Your task to perform on an android device: choose inbox layout in the gmail app Image 0: 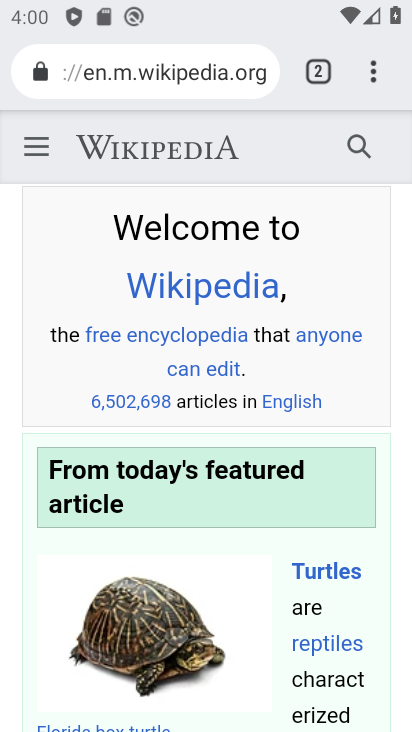
Step 0: press home button
Your task to perform on an android device: choose inbox layout in the gmail app Image 1: 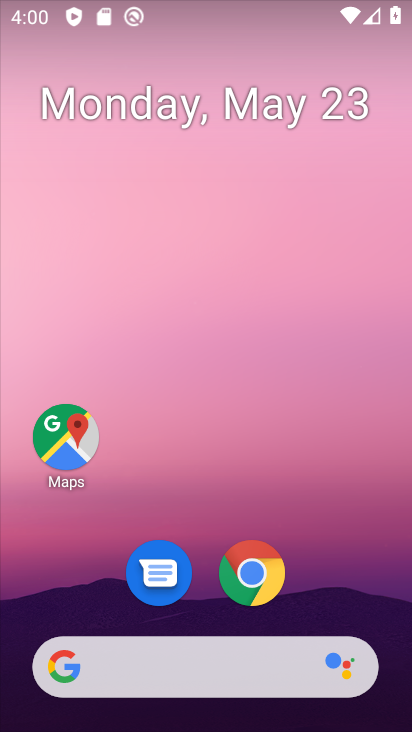
Step 1: drag from (197, 717) to (219, 25)
Your task to perform on an android device: choose inbox layout in the gmail app Image 2: 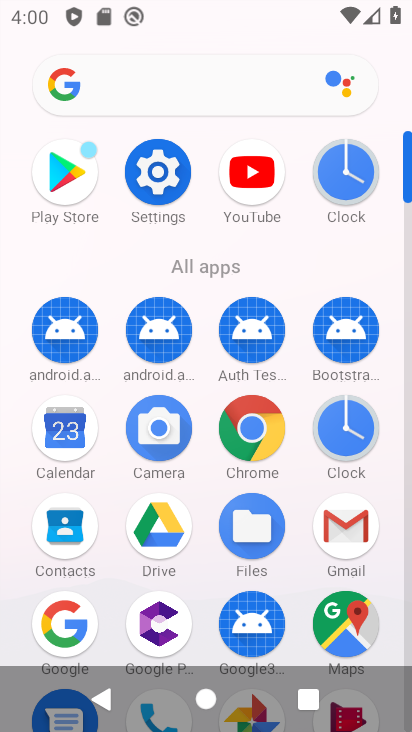
Step 2: click (352, 529)
Your task to perform on an android device: choose inbox layout in the gmail app Image 3: 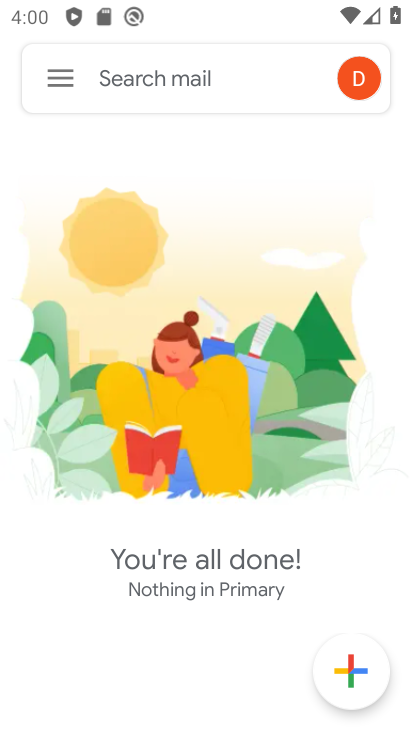
Step 3: click (51, 78)
Your task to perform on an android device: choose inbox layout in the gmail app Image 4: 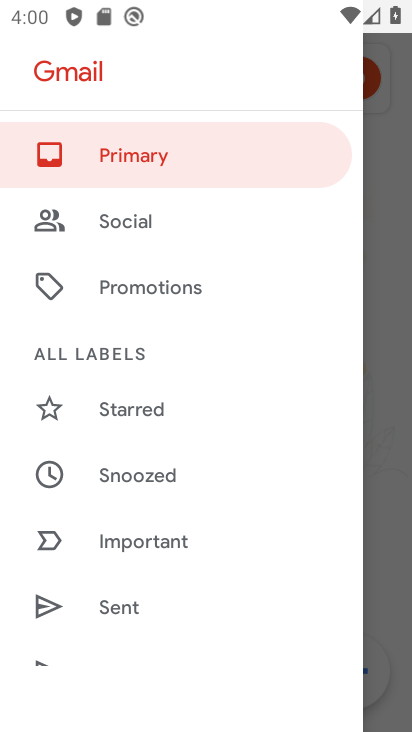
Step 4: drag from (140, 634) to (140, 202)
Your task to perform on an android device: choose inbox layout in the gmail app Image 5: 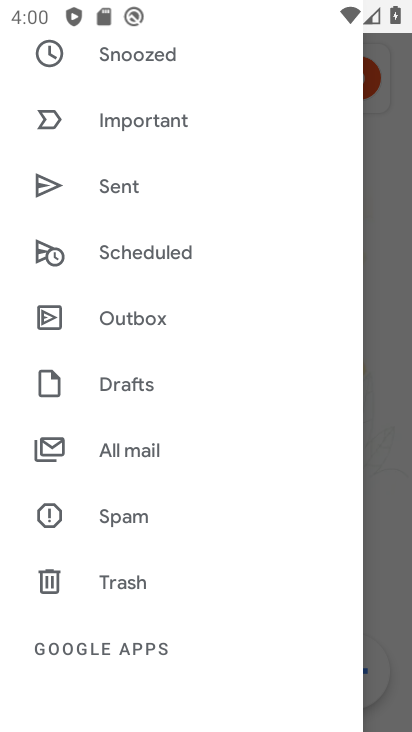
Step 5: drag from (113, 622) to (146, 185)
Your task to perform on an android device: choose inbox layout in the gmail app Image 6: 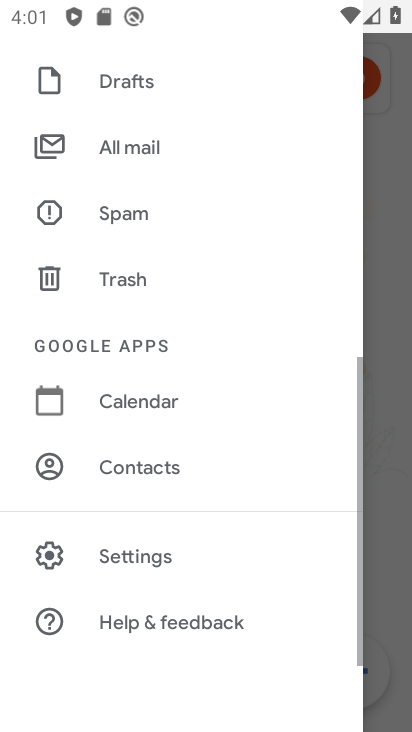
Step 6: drag from (137, 551) to (145, 126)
Your task to perform on an android device: choose inbox layout in the gmail app Image 7: 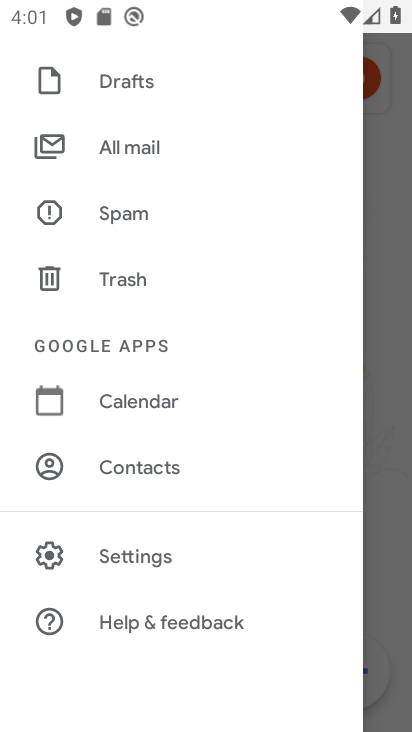
Step 7: drag from (119, 586) to (130, 89)
Your task to perform on an android device: choose inbox layout in the gmail app Image 8: 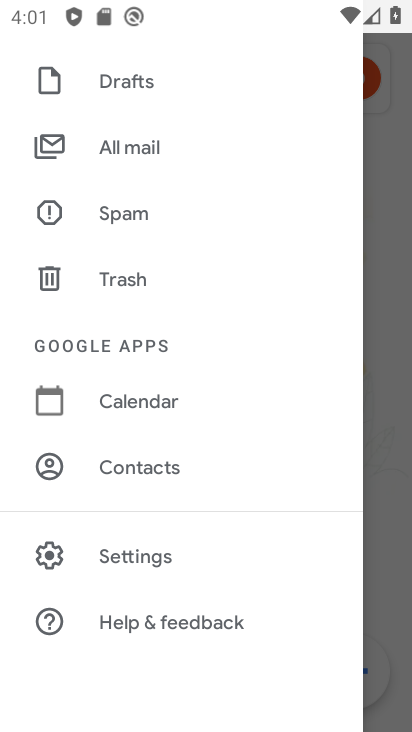
Step 8: click (112, 561)
Your task to perform on an android device: choose inbox layout in the gmail app Image 9: 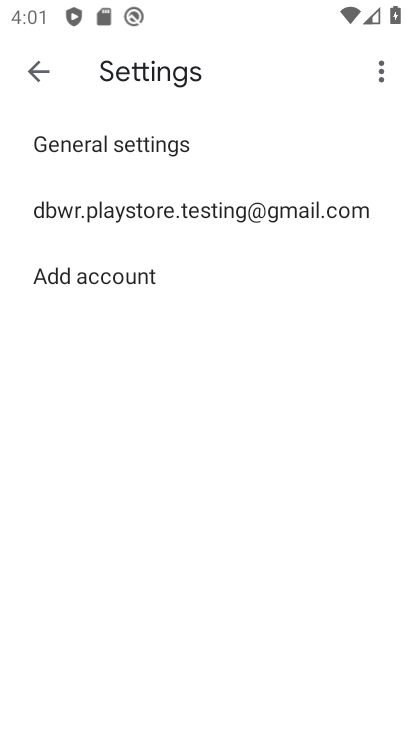
Step 9: click (181, 203)
Your task to perform on an android device: choose inbox layout in the gmail app Image 10: 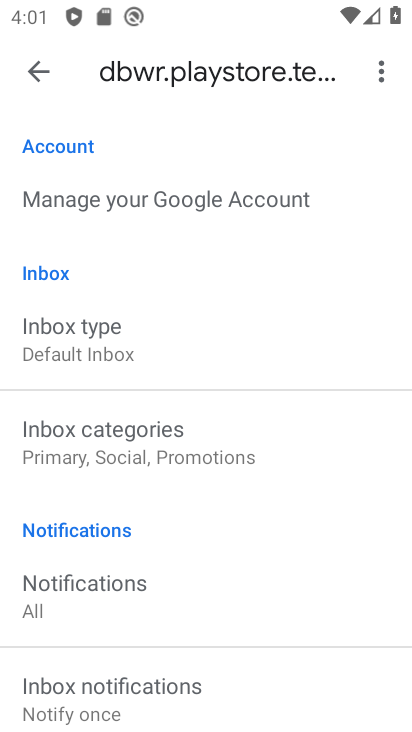
Step 10: drag from (127, 648) to (153, 342)
Your task to perform on an android device: choose inbox layout in the gmail app Image 11: 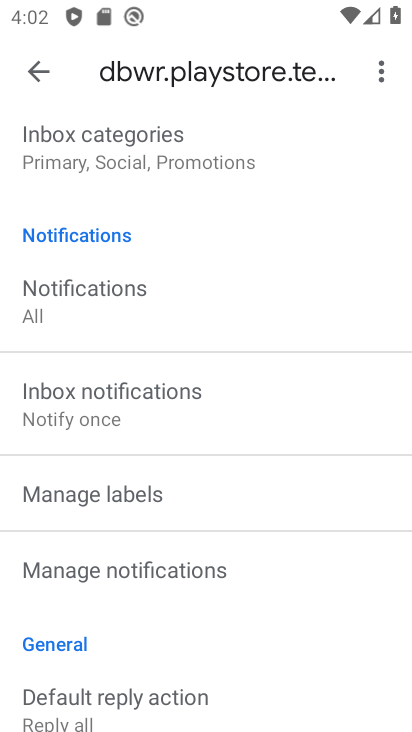
Step 11: drag from (116, 188) to (115, 656)
Your task to perform on an android device: choose inbox layout in the gmail app Image 12: 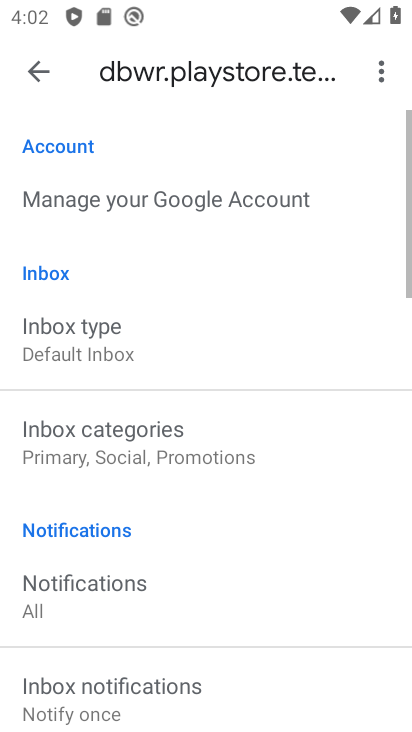
Step 12: click (44, 342)
Your task to perform on an android device: choose inbox layout in the gmail app Image 13: 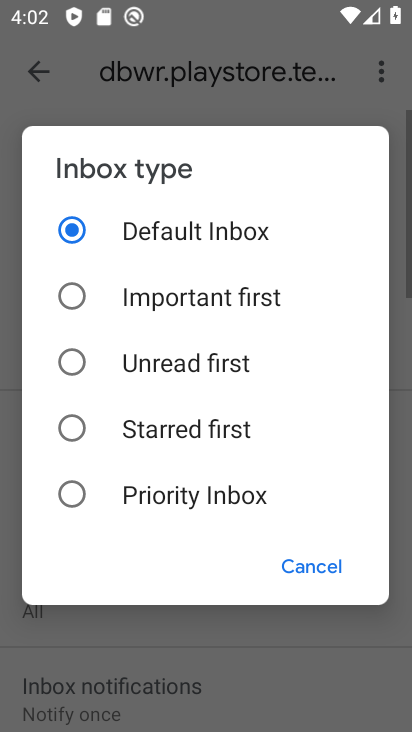
Step 13: click (77, 294)
Your task to perform on an android device: choose inbox layout in the gmail app Image 14: 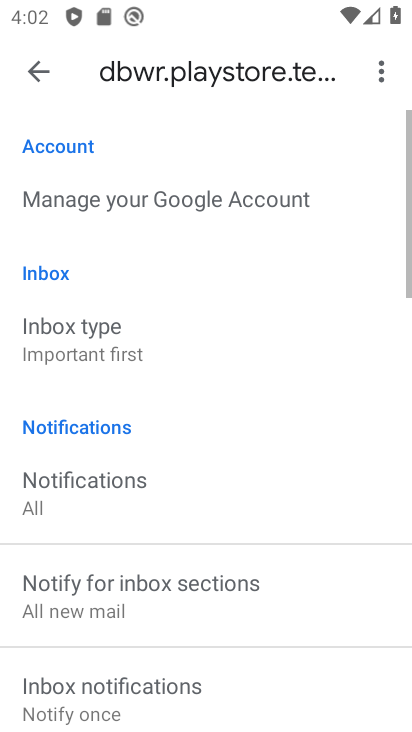
Step 14: task complete